Your task to perform on an android device: Go to accessibility settings Image 0: 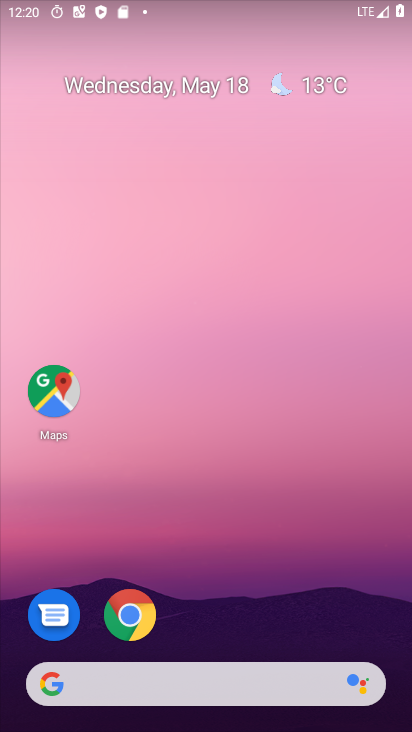
Step 0: press home button
Your task to perform on an android device: Go to accessibility settings Image 1: 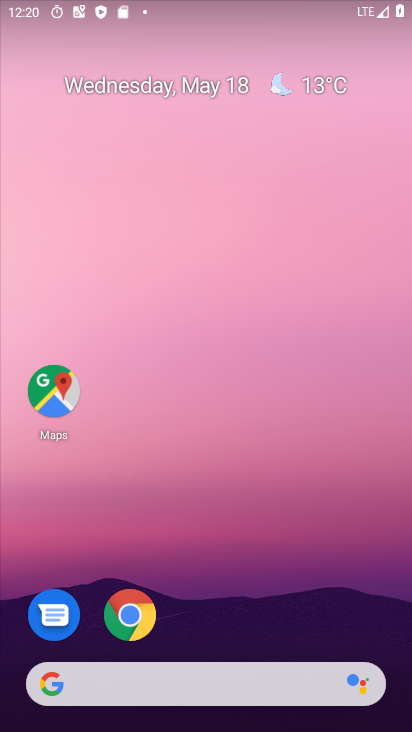
Step 1: drag from (197, 687) to (292, 147)
Your task to perform on an android device: Go to accessibility settings Image 2: 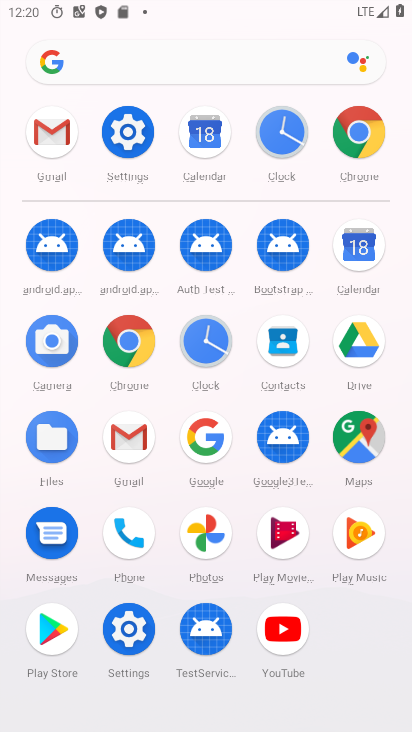
Step 2: click (136, 134)
Your task to perform on an android device: Go to accessibility settings Image 3: 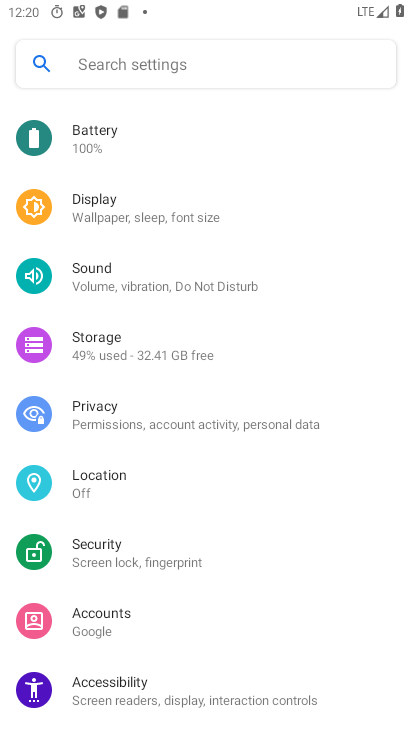
Step 3: drag from (267, 627) to (380, 266)
Your task to perform on an android device: Go to accessibility settings Image 4: 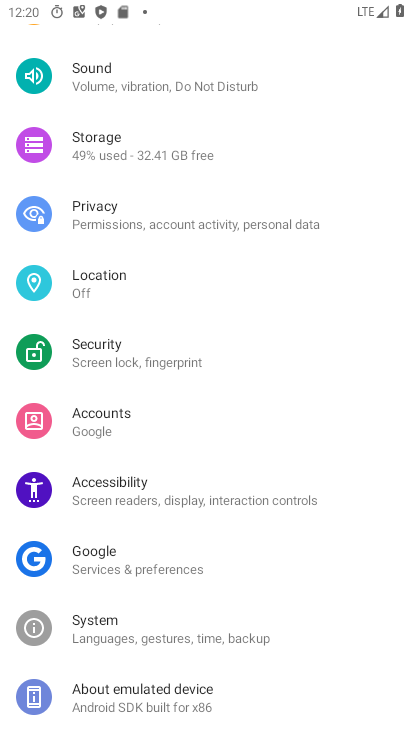
Step 4: click (116, 491)
Your task to perform on an android device: Go to accessibility settings Image 5: 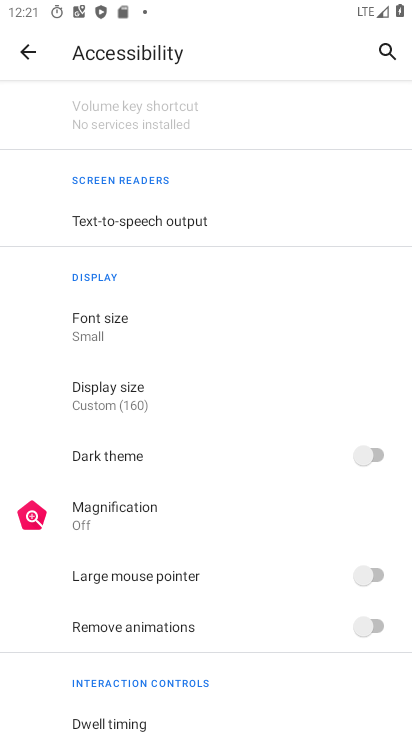
Step 5: task complete